Your task to perform on an android device: change timer sound Image 0: 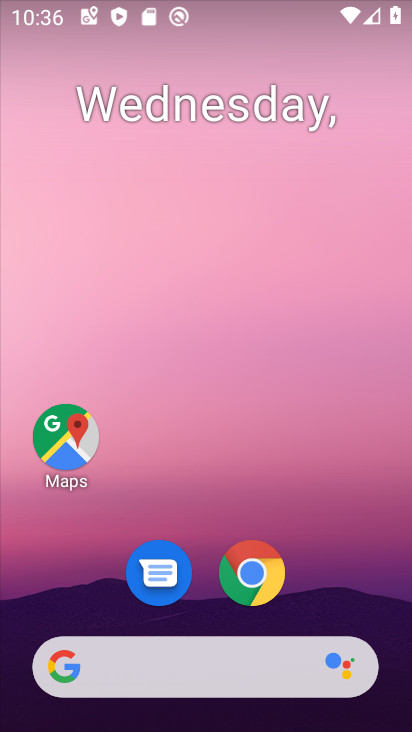
Step 0: drag from (394, 614) to (382, 174)
Your task to perform on an android device: change timer sound Image 1: 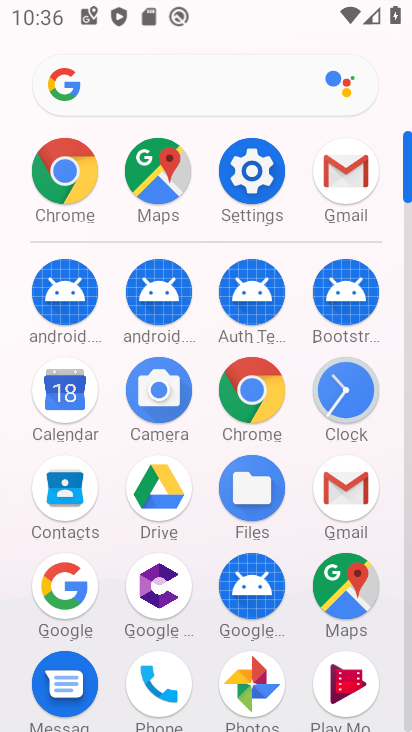
Step 1: click (360, 426)
Your task to perform on an android device: change timer sound Image 2: 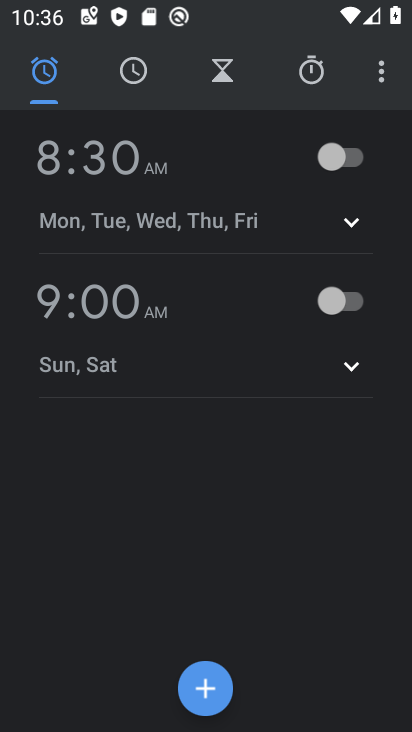
Step 2: click (380, 81)
Your task to perform on an android device: change timer sound Image 3: 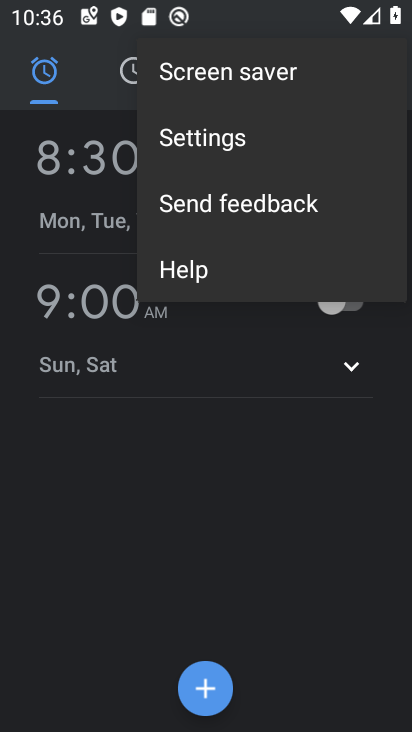
Step 3: click (291, 142)
Your task to perform on an android device: change timer sound Image 4: 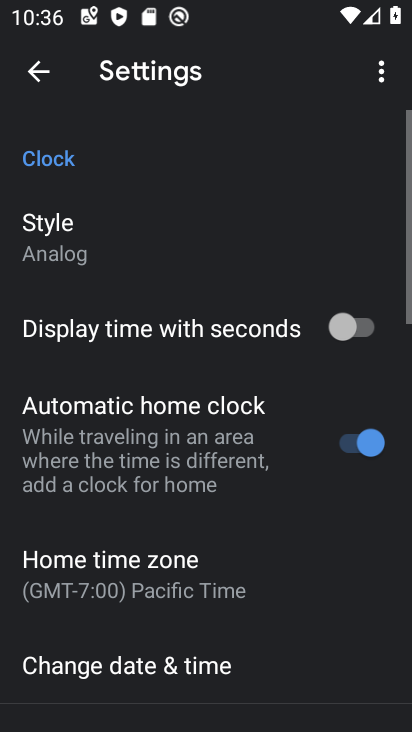
Step 4: drag from (247, 568) to (258, 440)
Your task to perform on an android device: change timer sound Image 5: 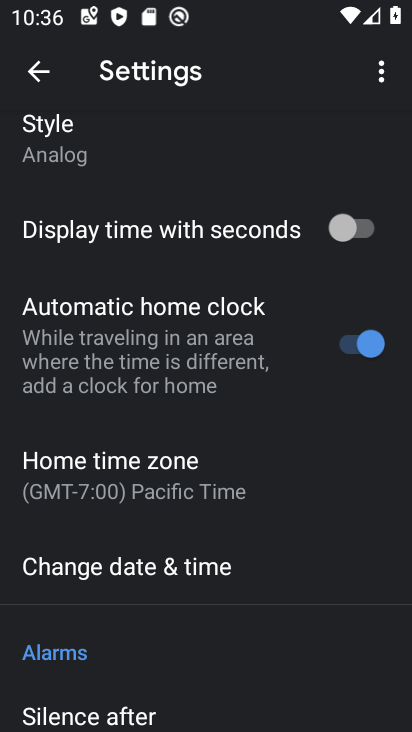
Step 5: drag from (267, 582) to (270, 479)
Your task to perform on an android device: change timer sound Image 6: 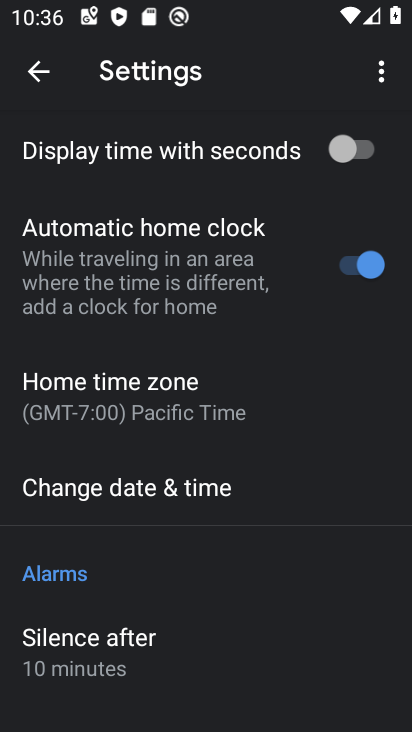
Step 6: drag from (270, 582) to (276, 450)
Your task to perform on an android device: change timer sound Image 7: 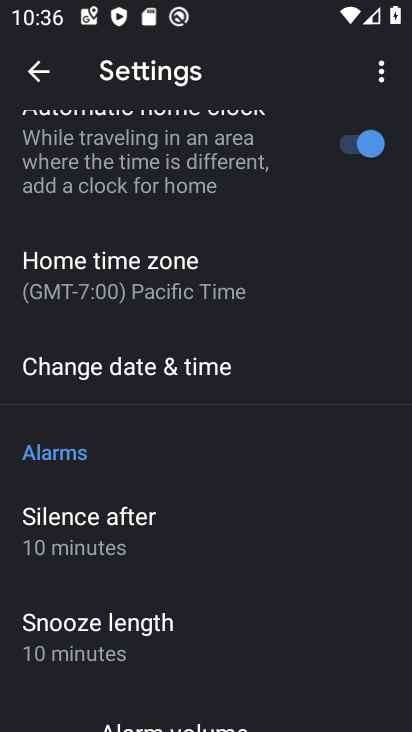
Step 7: drag from (273, 559) to (291, 463)
Your task to perform on an android device: change timer sound Image 8: 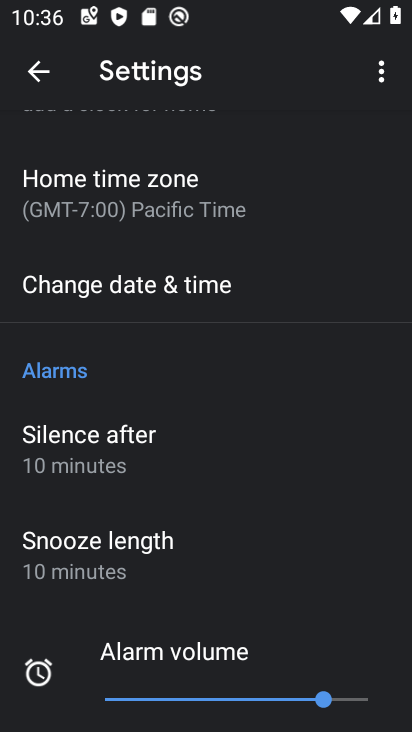
Step 8: drag from (285, 567) to (291, 474)
Your task to perform on an android device: change timer sound Image 9: 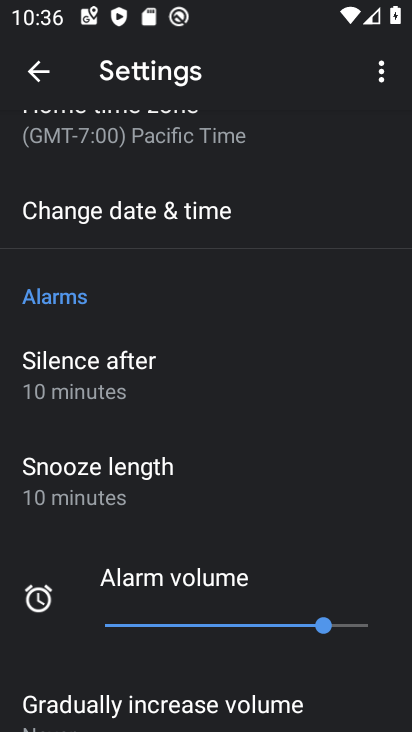
Step 9: drag from (272, 535) to (276, 453)
Your task to perform on an android device: change timer sound Image 10: 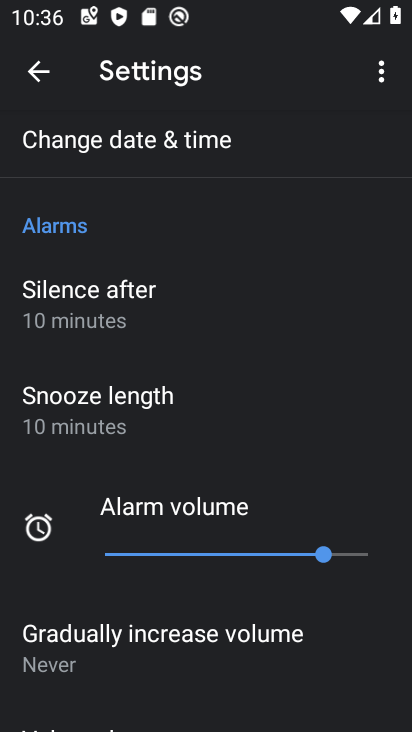
Step 10: drag from (297, 351) to (297, 399)
Your task to perform on an android device: change timer sound Image 11: 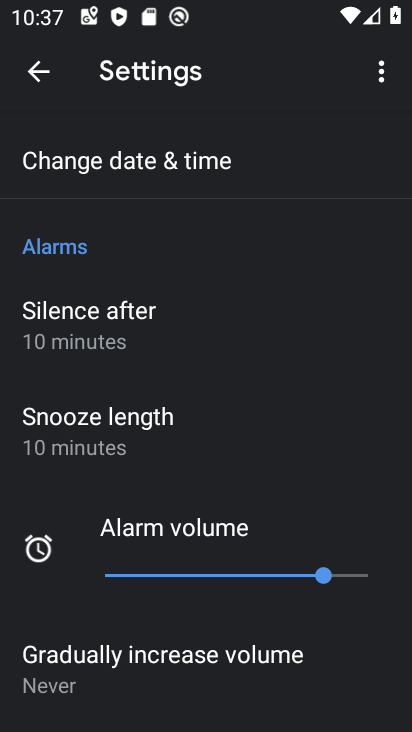
Step 11: drag from (303, 466) to (311, 378)
Your task to perform on an android device: change timer sound Image 12: 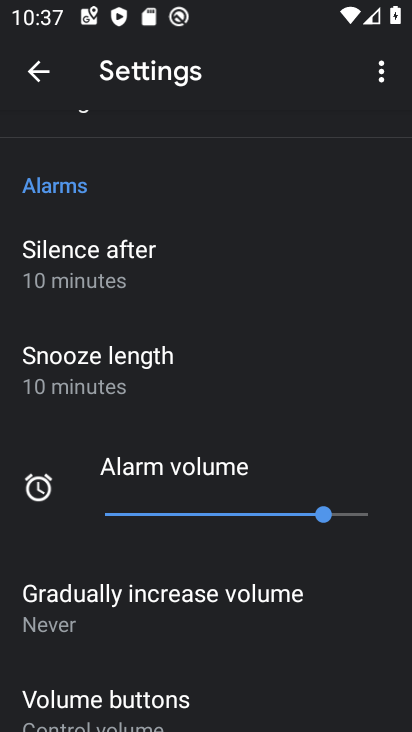
Step 12: drag from (318, 565) to (330, 468)
Your task to perform on an android device: change timer sound Image 13: 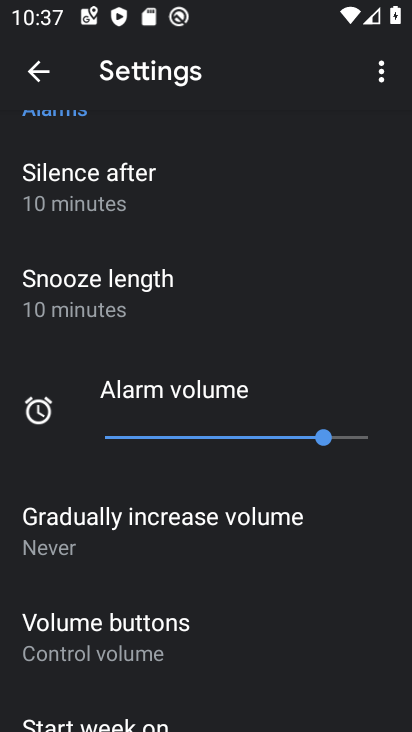
Step 13: drag from (309, 656) to (324, 520)
Your task to perform on an android device: change timer sound Image 14: 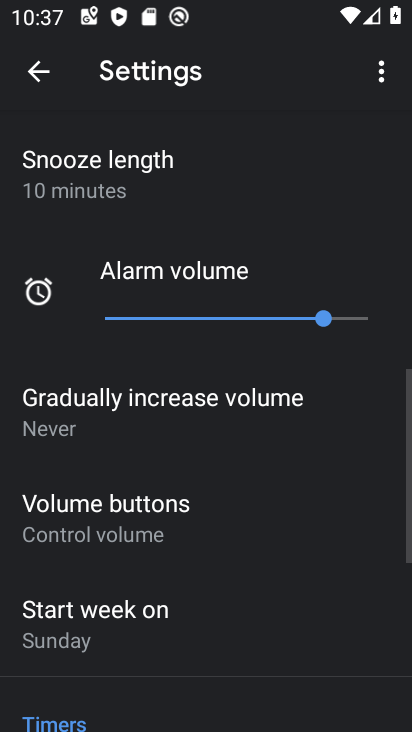
Step 14: drag from (316, 676) to (335, 557)
Your task to perform on an android device: change timer sound Image 15: 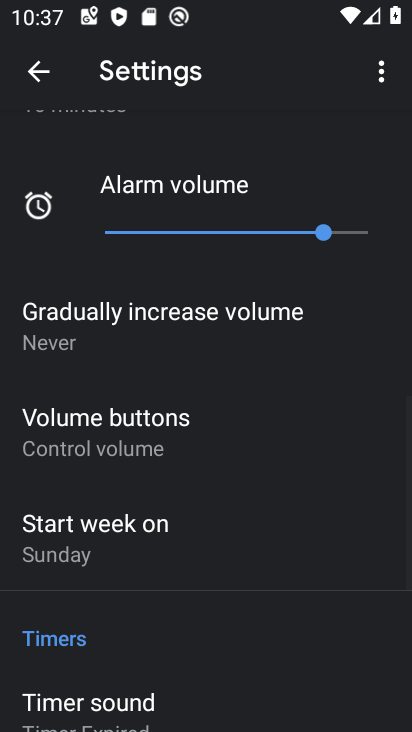
Step 15: drag from (335, 678) to (351, 583)
Your task to perform on an android device: change timer sound Image 16: 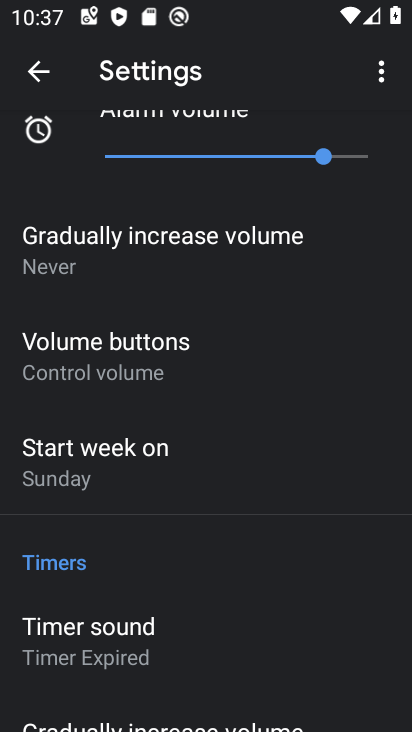
Step 16: drag from (346, 709) to (358, 616)
Your task to perform on an android device: change timer sound Image 17: 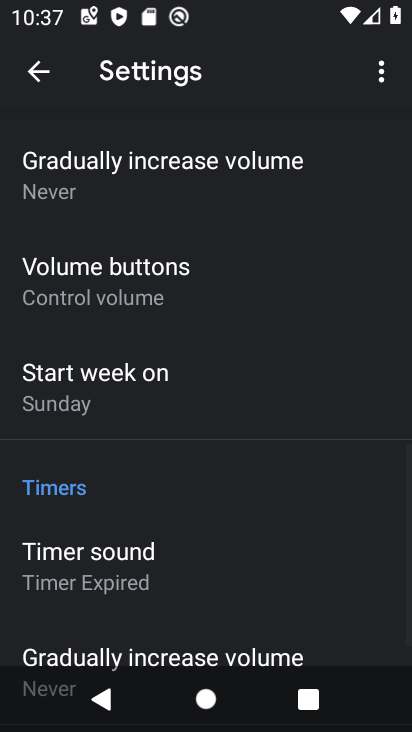
Step 17: drag from (337, 705) to (347, 633)
Your task to perform on an android device: change timer sound Image 18: 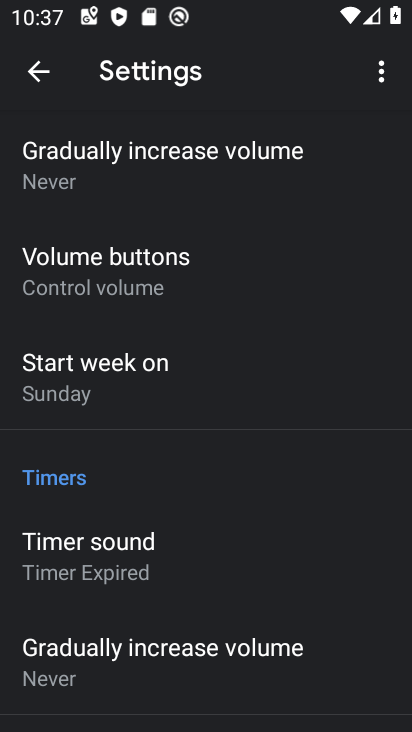
Step 18: click (336, 661)
Your task to perform on an android device: change timer sound Image 19: 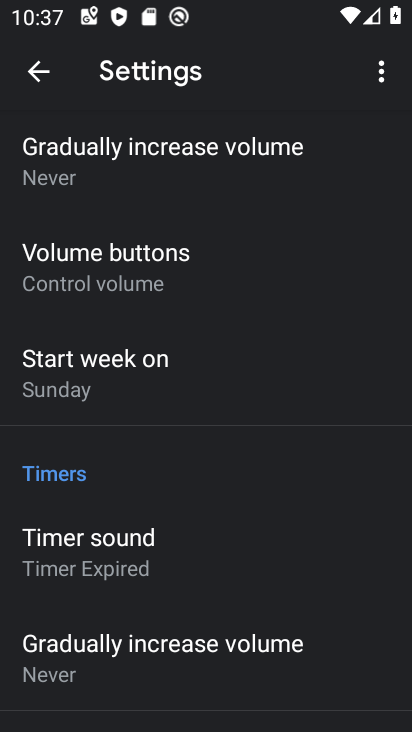
Step 19: click (115, 576)
Your task to perform on an android device: change timer sound Image 20: 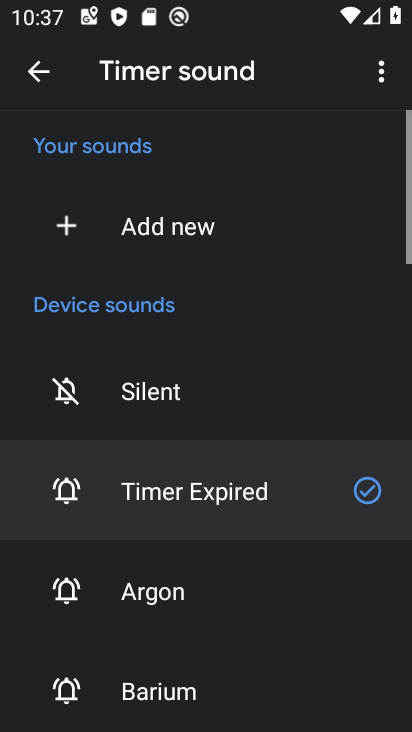
Step 20: click (130, 593)
Your task to perform on an android device: change timer sound Image 21: 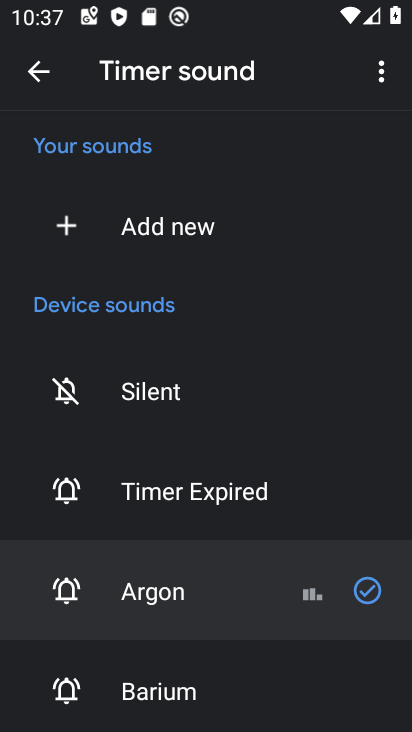
Step 21: task complete